Your task to perform on an android device: Open eBay Image 0: 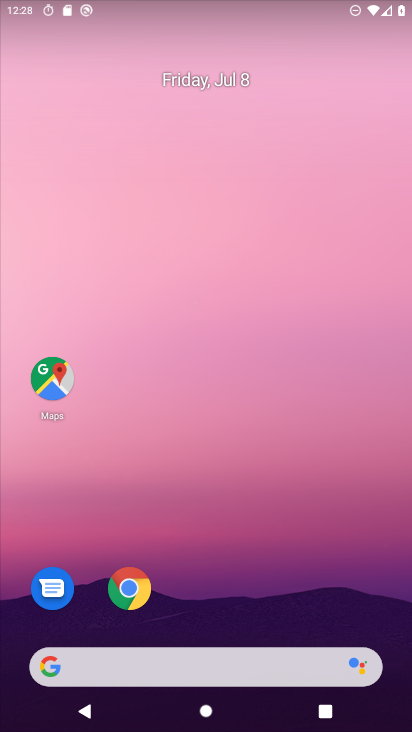
Step 0: drag from (261, 525) to (238, 122)
Your task to perform on an android device: Open eBay Image 1: 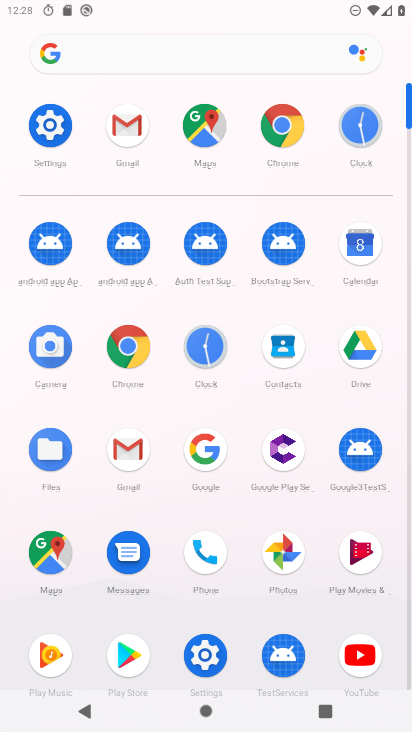
Step 1: click (281, 125)
Your task to perform on an android device: Open eBay Image 2: 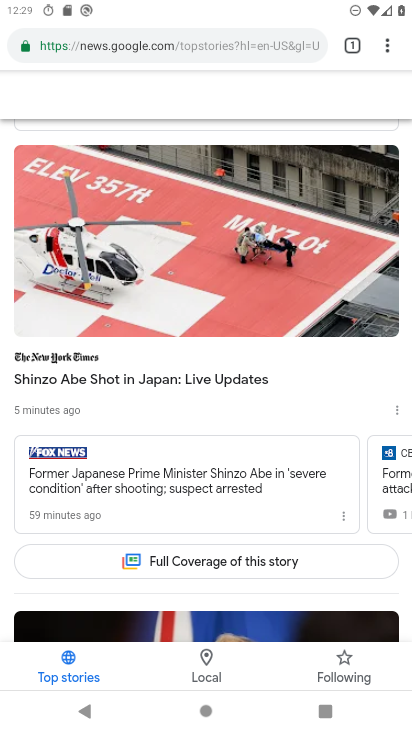
Step 2: click (159, 50)
Your task to perform on an android device: Open eBay Image 3: 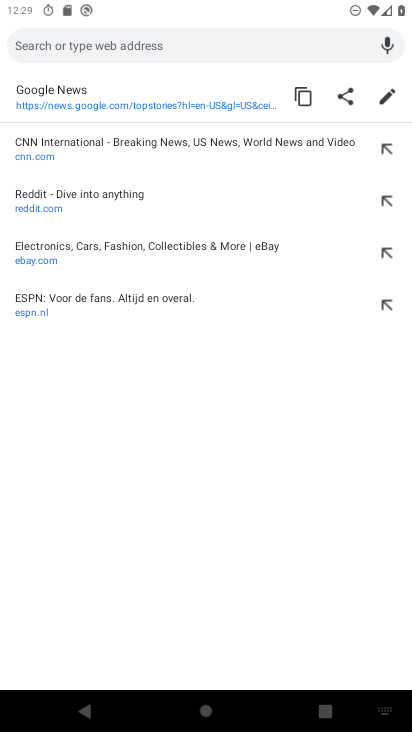
Step 3: click (39, 258)
Your task to perform on an android device: Open eBay Image 4: 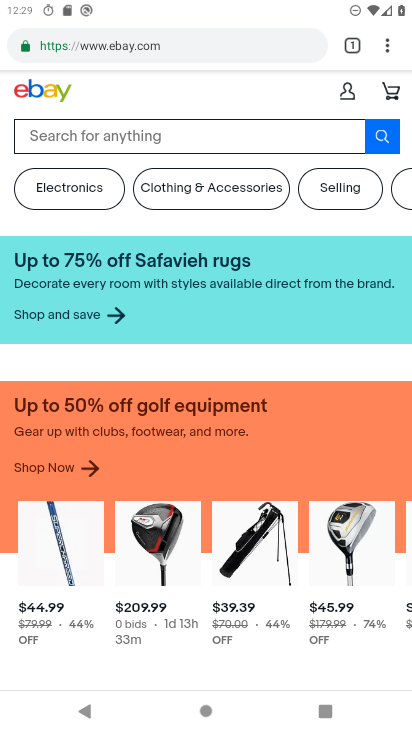
Step 4: task complete